Your task to perform on an android device: check the backup settings in the google photos Image 0: 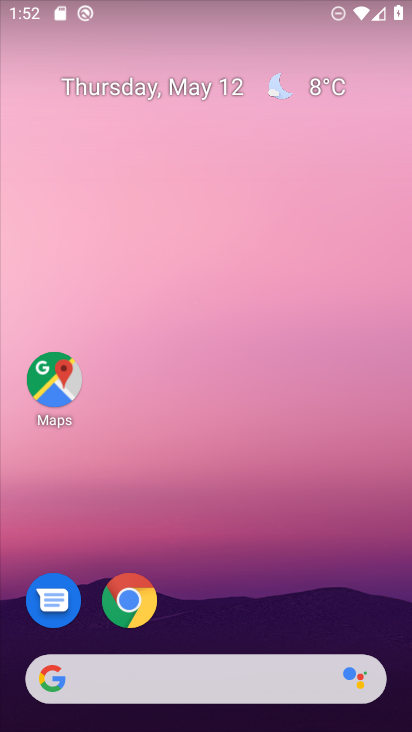
Step 0: drag from (204, 728) to (213, 130)
Your task to perform on an android device: check the backup settings in the google photos Image 1: 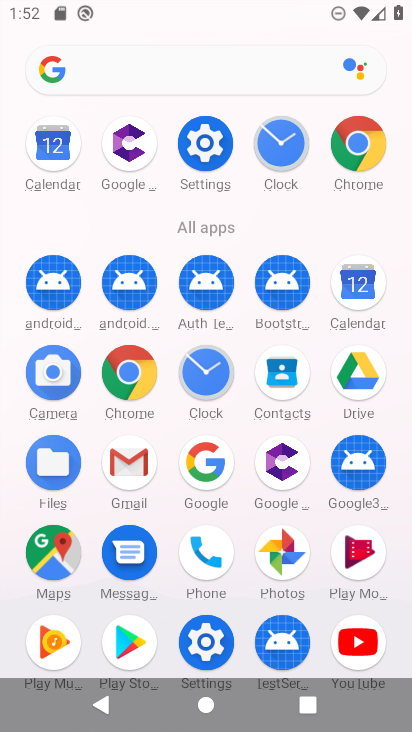
Step 1: click (283, 556)
Your task to perform on an android device: check the backup settings in the google photos Image 2: 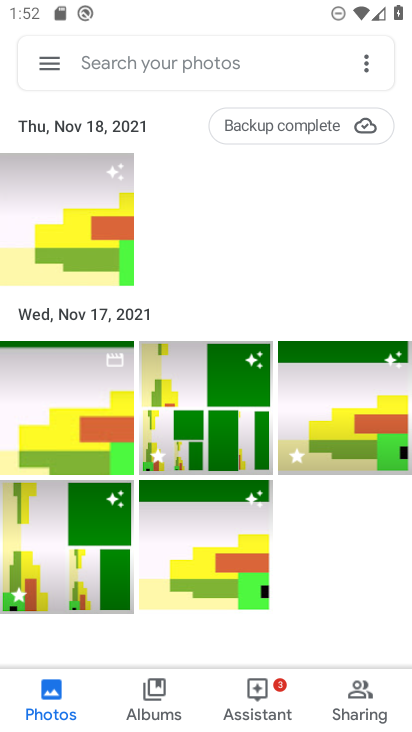
Step 2: click (45, 61)
Your task to perform on an android device: check the backup settings in the google photos Image 3: 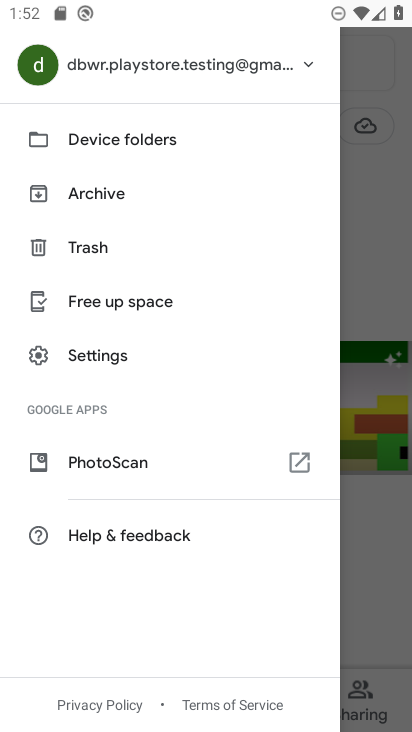
Step 3: click (94, 354)
Your task to perform on an android device: check the backup settings in the google photos Image 4: 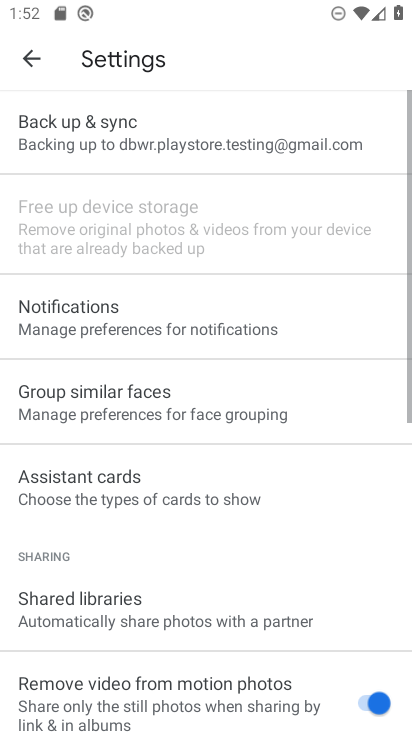
Step 4: click (116, 140)
Your task to perform on an android device: check the backup settings in the google photos Image 5: 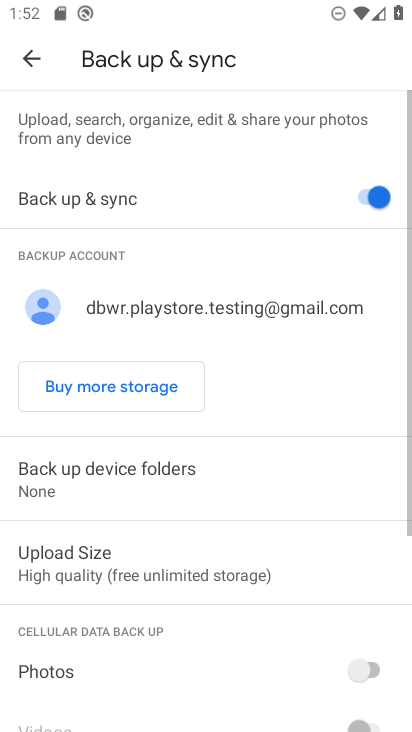
Step 5: task complete